Your task to perform on an android device: Go to Android settings Image 0: 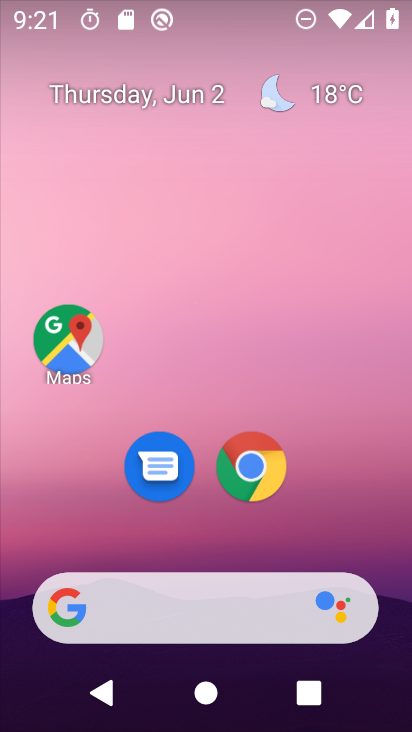
Step 0: press home button
Your task to perform on an android device: Go to Android settings Image 1: 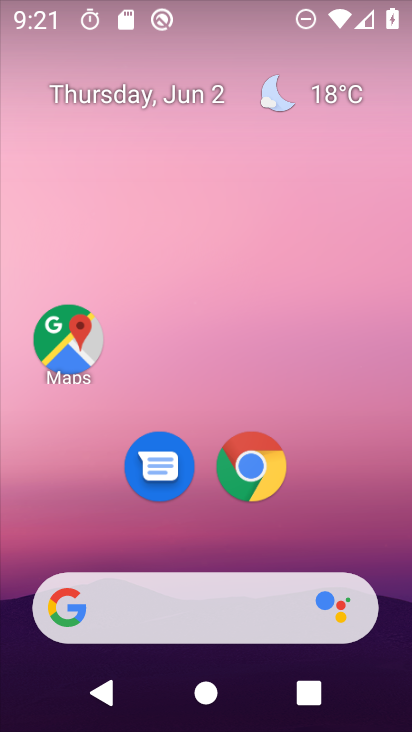
Step 1: drag from (313, 547) to (325, 23)
Your task to perform on an android device: Go to Android settings Image 2: 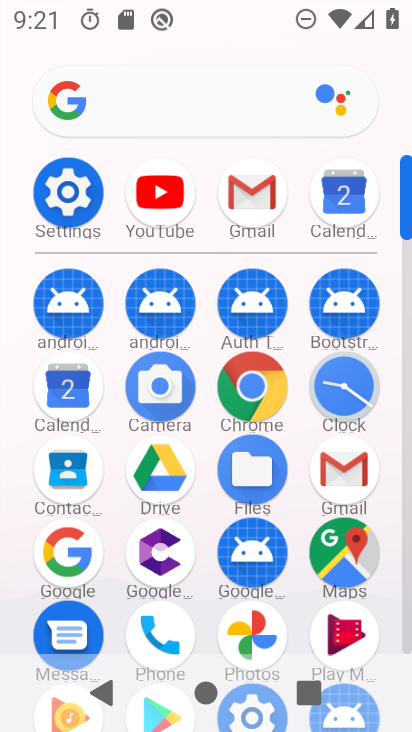
Step 2: click (63, 191)
Your task to perform on an android device: Go to Android settings Image 3: 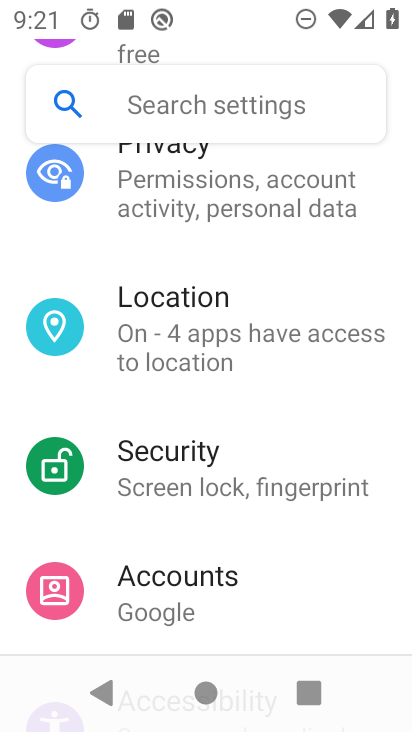
Step 3: task complete